Your task to perform on an android device: find snoozed emails in the gmail app Image 0: 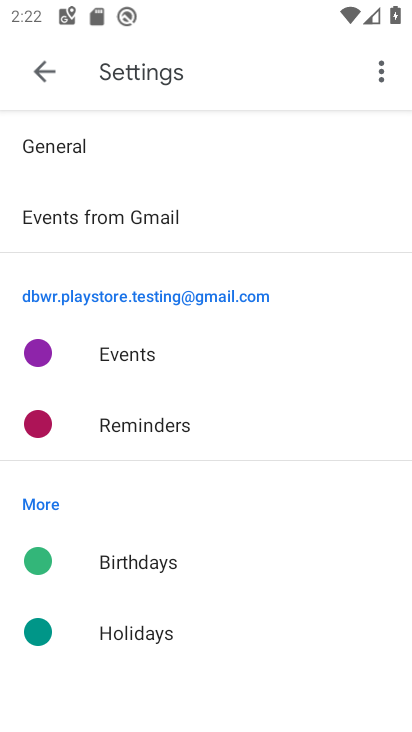
Step 0: press home button
Your task to perform on an android device: find snoozed emails in the gmail app Image 1: 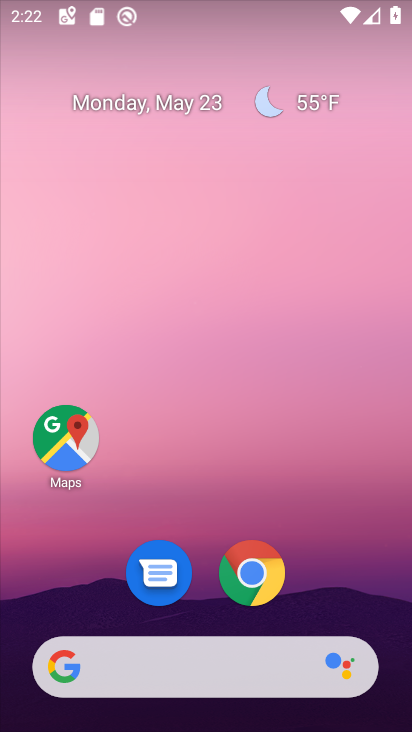
Step 1: drag from (329, 590) to (283, 44)
Your task to perform on an android device: find snoozed emails in the gmail app Image 2: 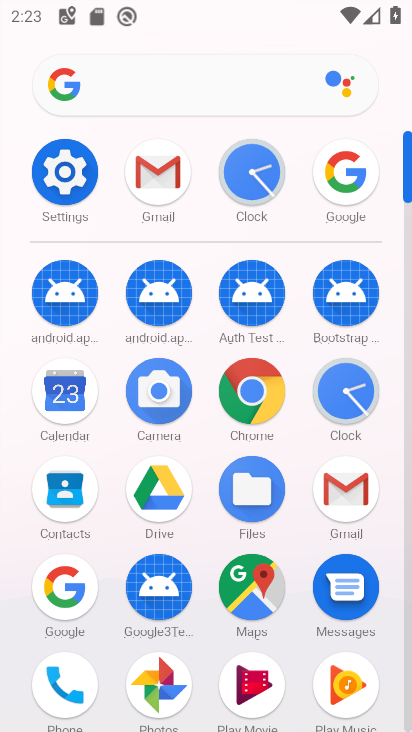
Step 2: click (335, 496)
Your task to perform on an android device: find snoozed emails in the gmail app Image 3: 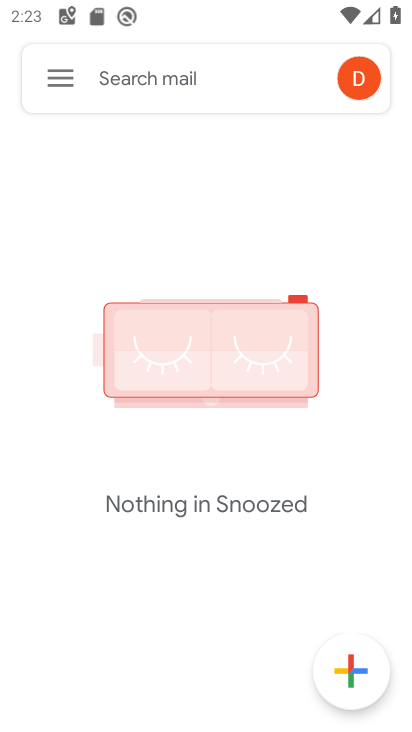
Step 3: click (62, 83)
Your task to perform on an android device: find snoozed emails in the gmail app Image 4: 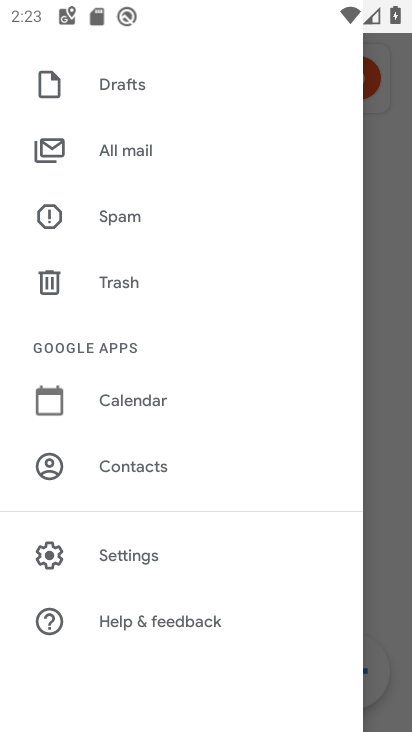
Step 4: drag from (181, 102) to (163, 476)
Your task to perform on an android device: find snoozed emails in the gmail app Image 5: 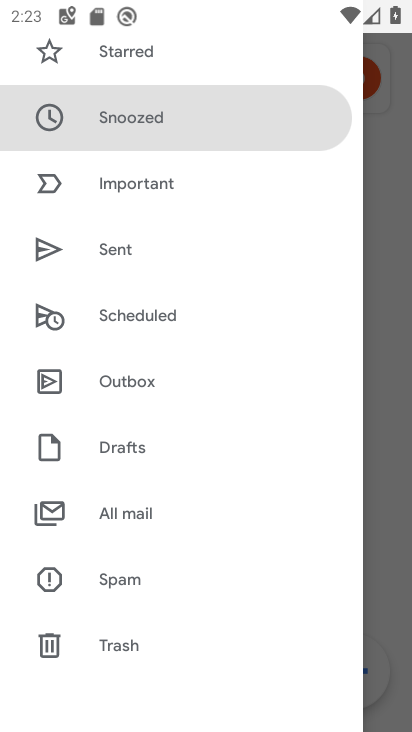
Step 5: drag from (185, 97) to (160, 559)
Your task to perform on an android device: find snoozed emails in the gmail app Image 6: 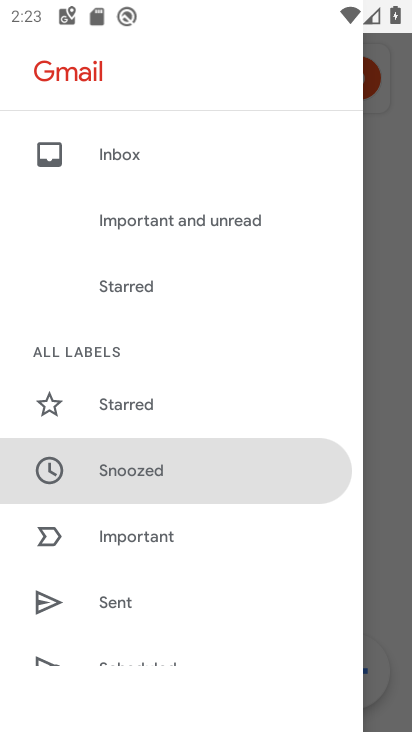
Step 6: click (142, 482)
Your task to perform on an android device: find snoozed emails in the gmail app Image 7: 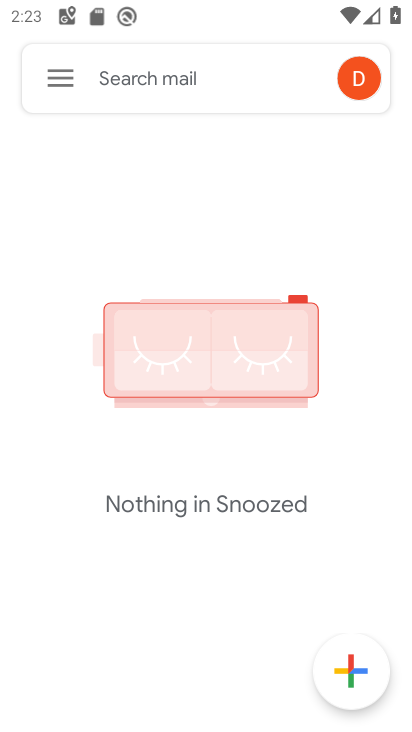
Step 7: task complete